Your task to perform on an android device: Show me the alarms in the clock app Image 0: 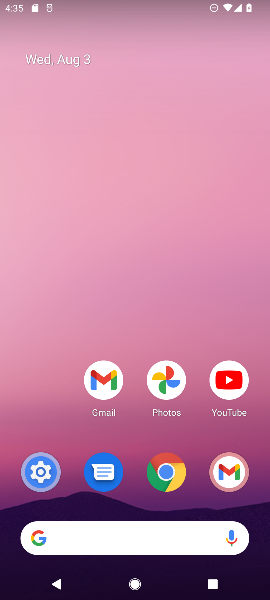
Step 0: drag from (202, 509) to (92, 59)
Your task to perform on an android device: Show me the alarms in the clock app Image 1: 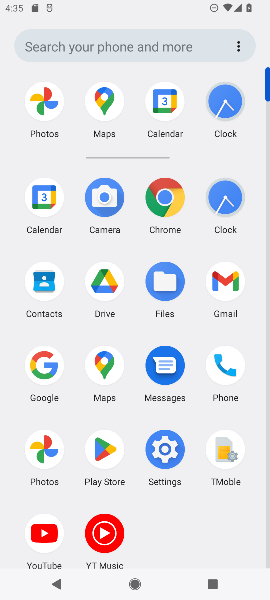
Step 1: click (222, 193)
Your task to perform on an android device: Show me the alarms in the clock app Image 2: 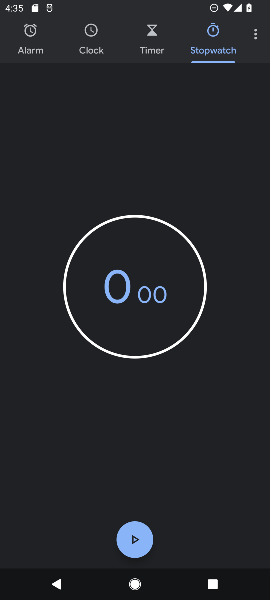
Step 2: click (258, 41)
Your task to perform on an android device: Show me the alarms in the clock app Image 3: 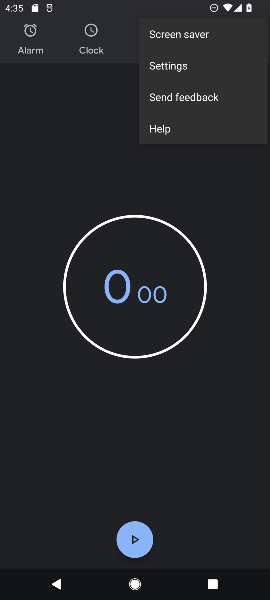
Step 3: click (88, 38)
Your task to perform on an android device: Show me the alarms in the clock app Image 4: 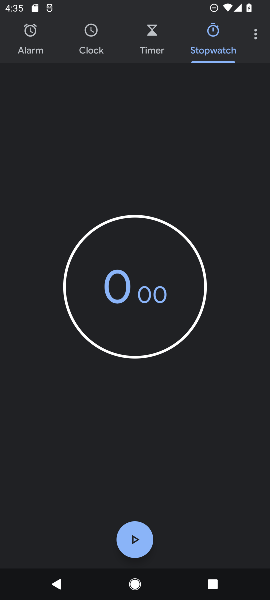
Step 4: click (88, 38)
Your task to perform on an android device: Show me the alarms in the clock app Image 5: 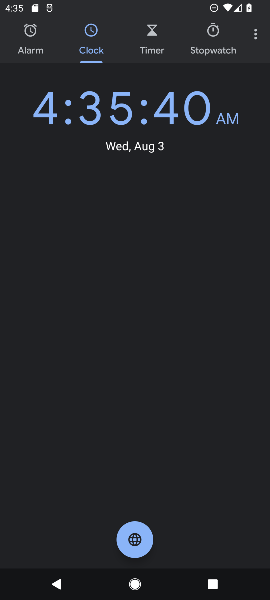
Step 5: task complete